Your task to perform on an android device: Do I have any events today? Image 0: 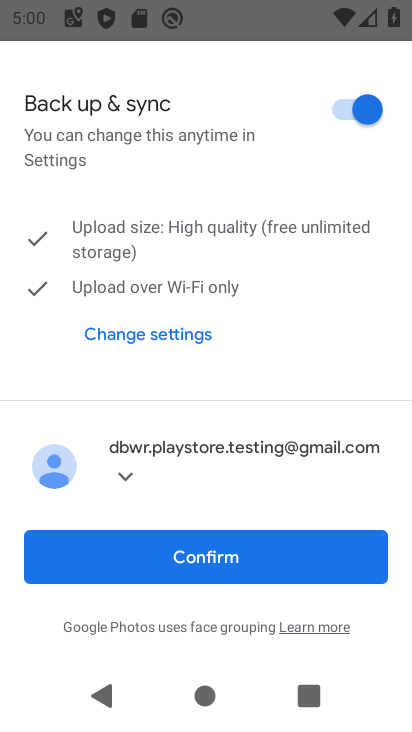
Step 0: press home button
Your task to perform on an android device: Do I have any events today? Image 1: 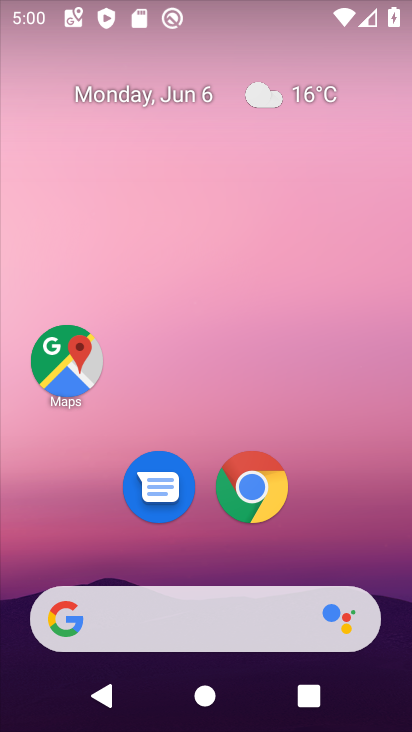
Step 1: drag from (213, 560) to (246, 36)
Your task to perform on an android device: Do I have any events today? Image 2: 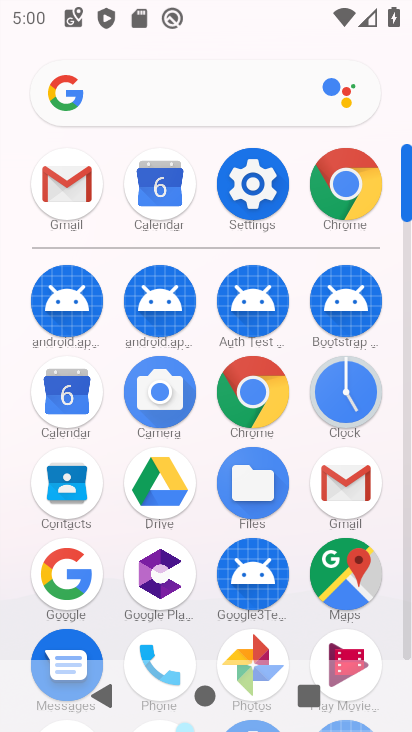
Step 2: click (155, 172)
Your task to perform on an android device: Do I have any events today? Image 3: 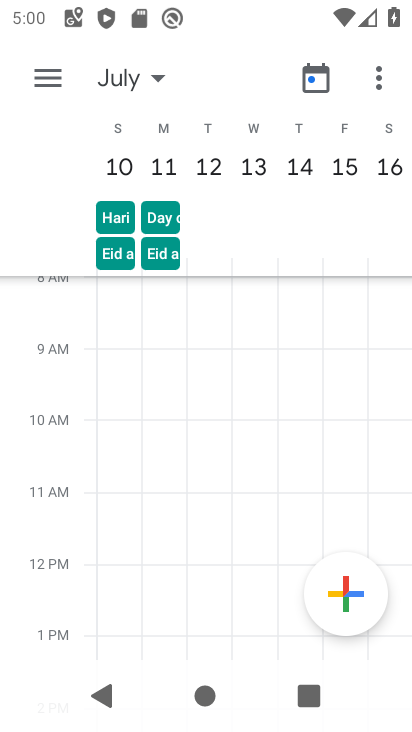
Step 3: drag from (129, 363) to (389, 408)
Your task to perform on an android device: Do I have any events today? Image 4: 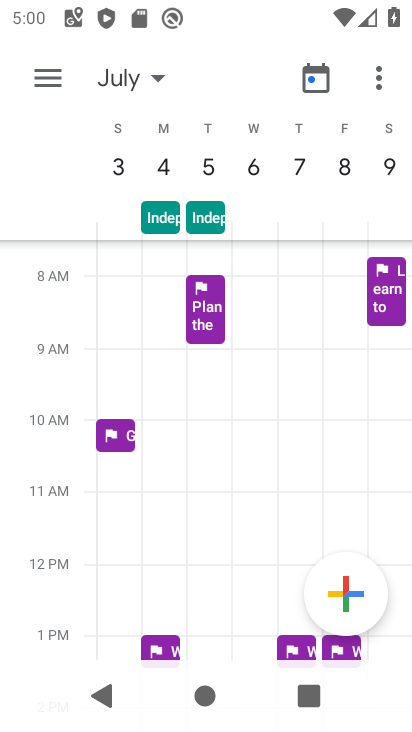
Step 4: drag from (116, 475) to (411, 473)
Your task to perform on an android device: Do I have any events today? Image 5: 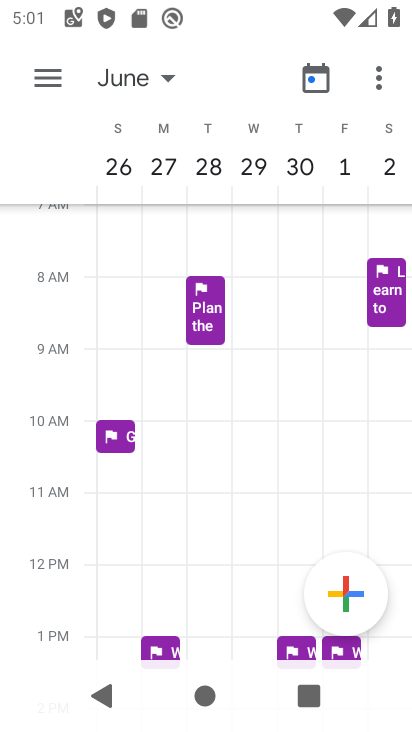
Step 5: drag from (110, 544) to (404, 511)
Your task to perform on an android device: Do I have any events today? Image 6: 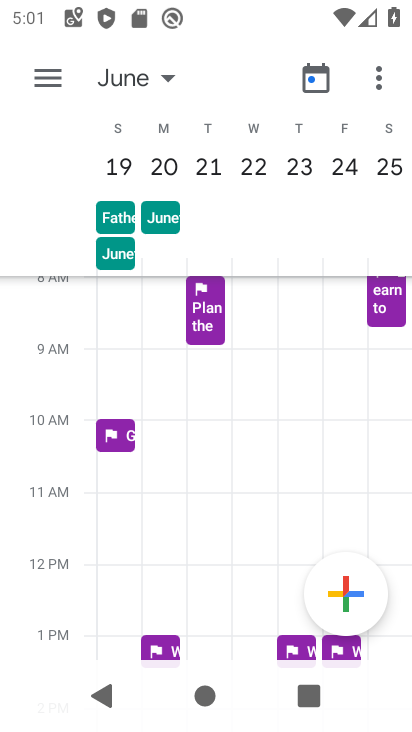
Step 6: drag from (125, 535) to (410, 495)
Your task to perform on an android device: Do I have any events today? Image 7: 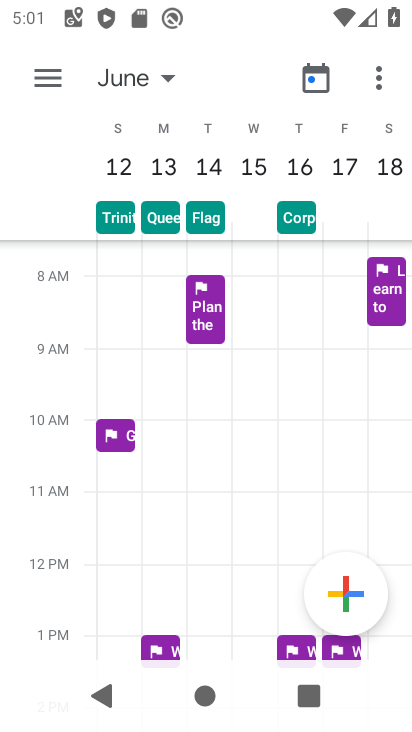
Step 7: drag from (118, 536) to (407, 511)
Your task to perform on an android device: Do I have any events today? Image 8: 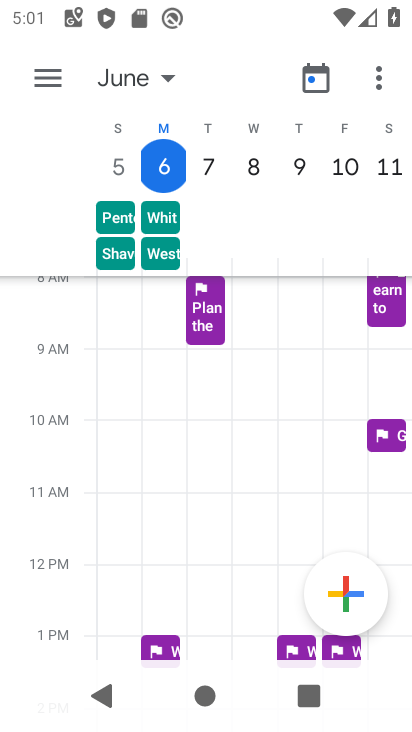
Step 8: click (165, 157)
Your task to perform on an android device: Do I have any events today? Image 9: 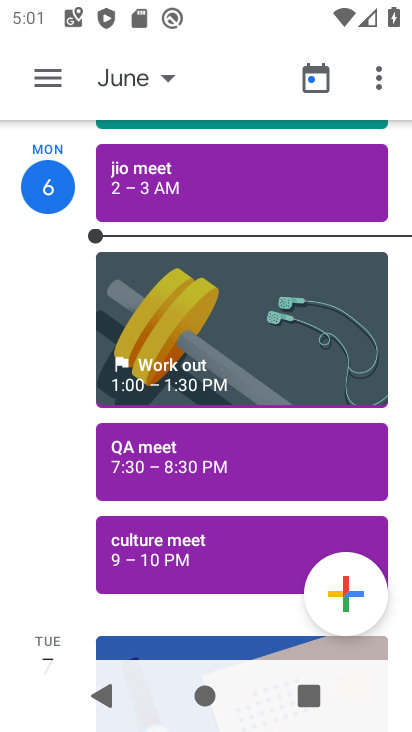
Step 9: task complete